Your task to perform on an android device: Open Android settings Image 0: 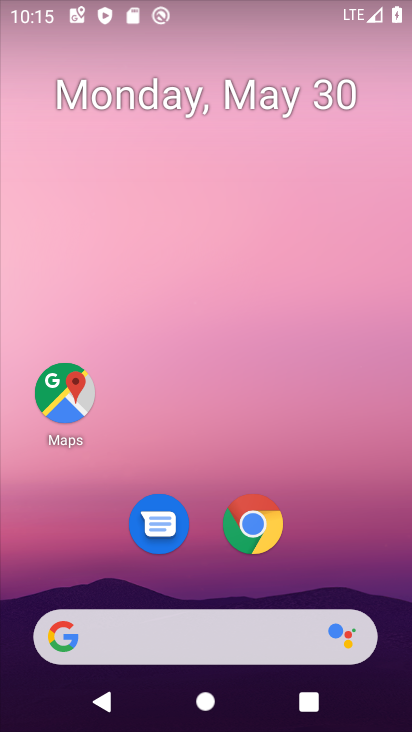
Step 0: drag from (314, 495) to (307, 4)
Your task to perform on an android device: Open Android settings Image 1: 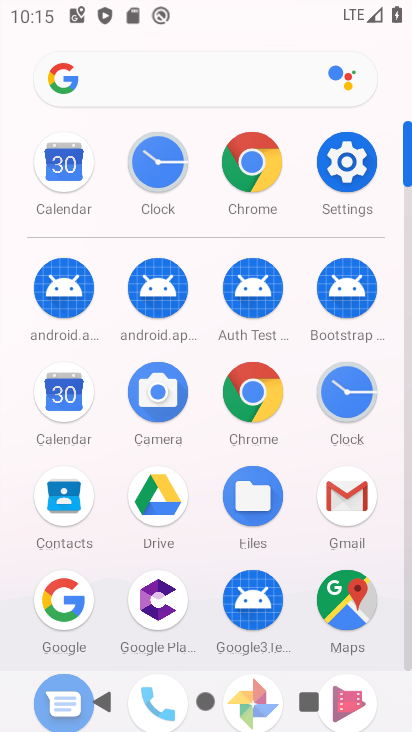
Step 1: click (351, 160)
Your task to perform on an android device: Open Android settings Image 2: 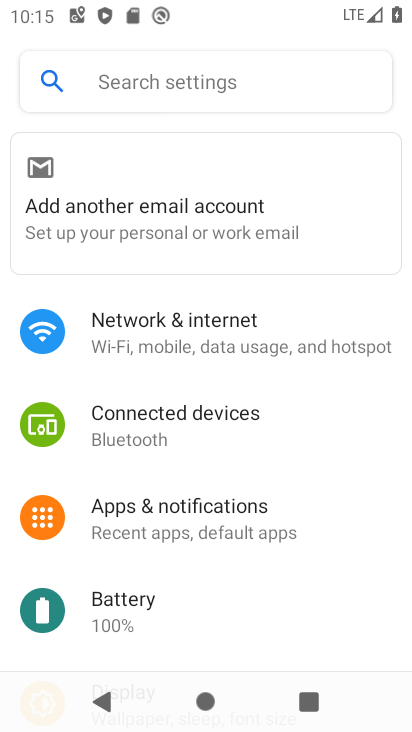
Step 2: drag from (237, 584) to (292, 15)
Your task to perform on an android device: Open Android settings Image 3: 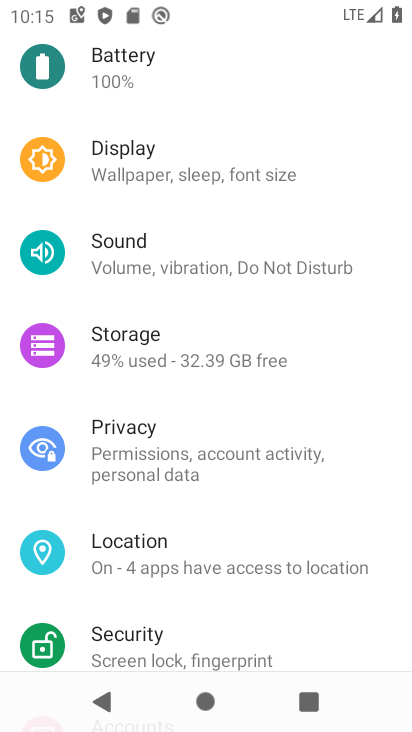
Step 3: drag from (238, 548) to (276, 0)
Your task to perform on an android device: Open Android settings Image 4: 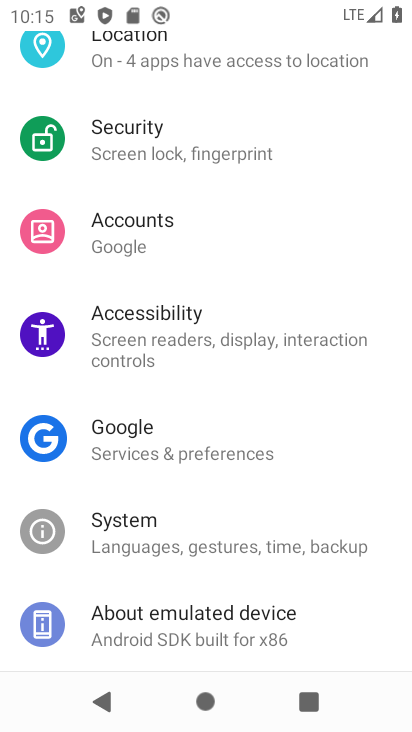
Step 4: click (215, 629)
Your task to perform on an android device: Open Android settings Image 5: 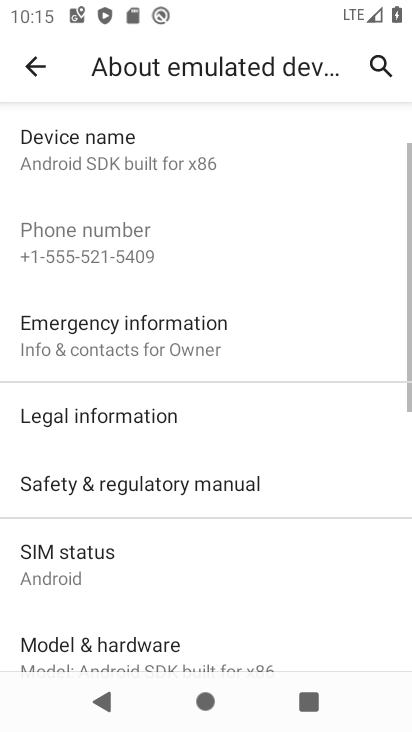
Step 5: task complete